Your task to perform on an android device: Go to location settings Image 0: 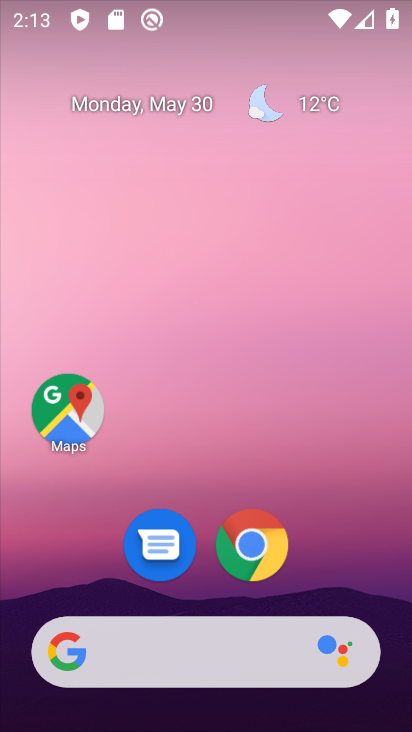
Step 0: task complete